Your task to perform on an android device: change the clock display to analog Image 0: 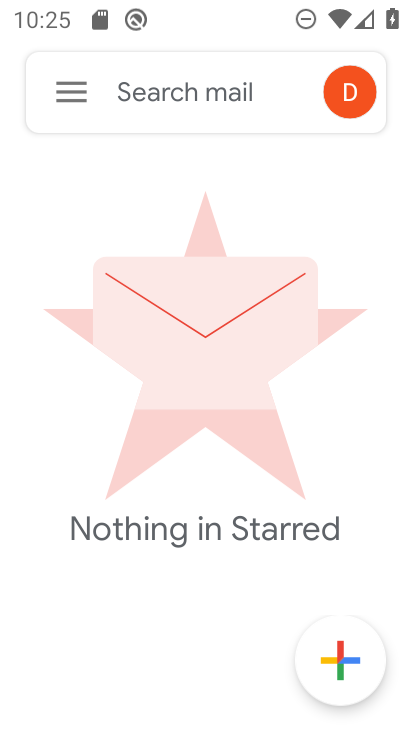
Step 0: press home button
Your task to perform on an android device: change the clock display to analog Image 1: 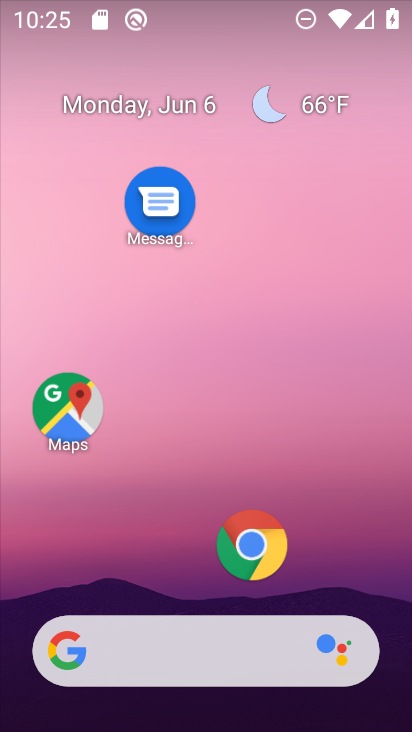
Step 1: drag from (143, 514) to (257, 124)
Your task to perform on an android device: change the clock display to analog Image 2: 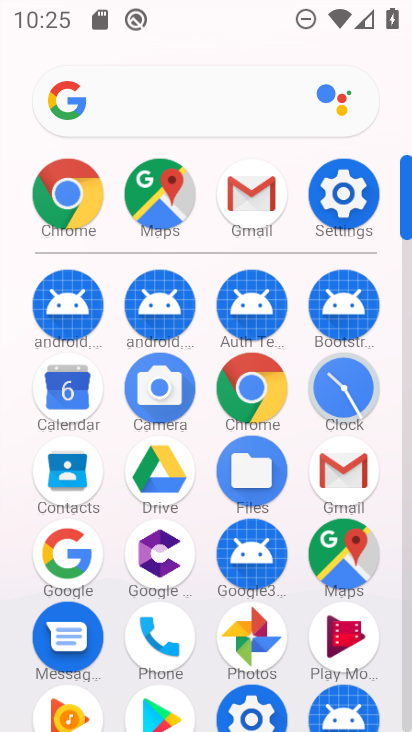
Step 2: click (353, 392)
Your task to perform on an android device: change the clock display to analog Image 3: 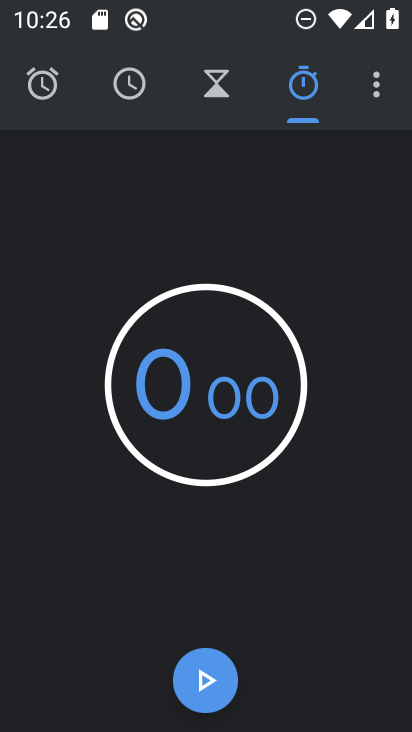
Step 3: click (381, 77)
Your task to perform on an android device: change the clock display to analog Image 4: 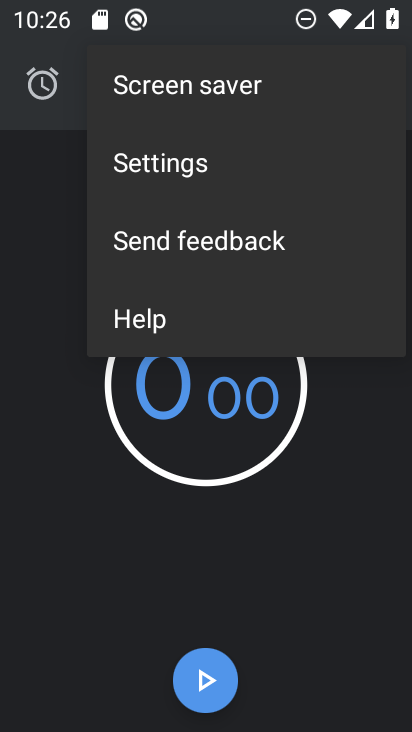
Step 4: click (212, 150)
Your task to perform on an android device: change the clock display to analog Image 5: 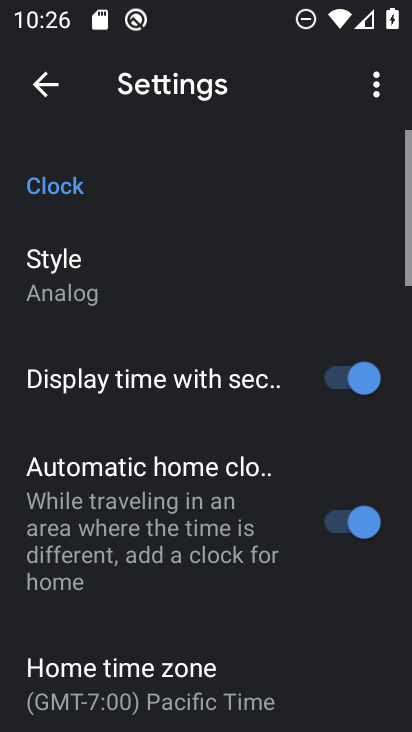
Step 5: click (90, 272)
Your task to perform on an android device: change the clock display to analog Image 6: 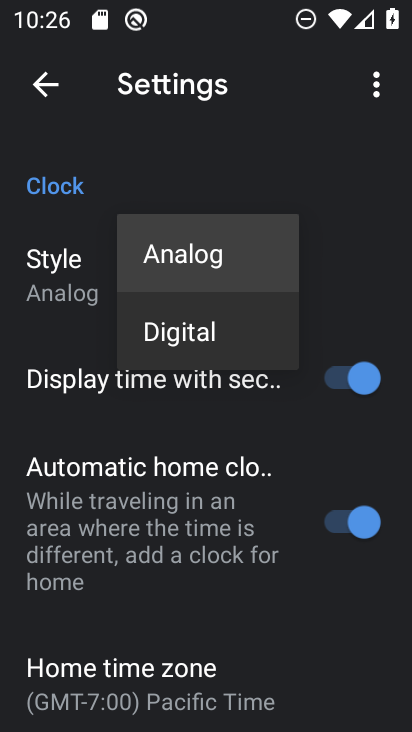
Step 6: task complete